Your task to perform on an android device: Open Youtube and go to the subscriptions tab Image 0: 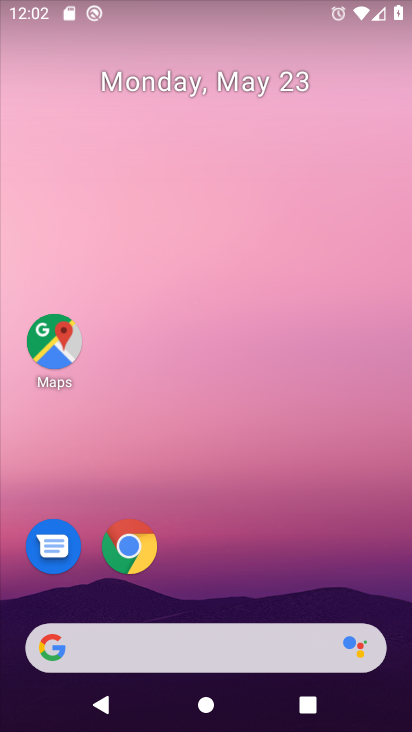
Step 0: drag from (210, 627) to (233, 212)
Your task to perform on an android device: Open Youtube and go to the subscriptions tab Image 1: 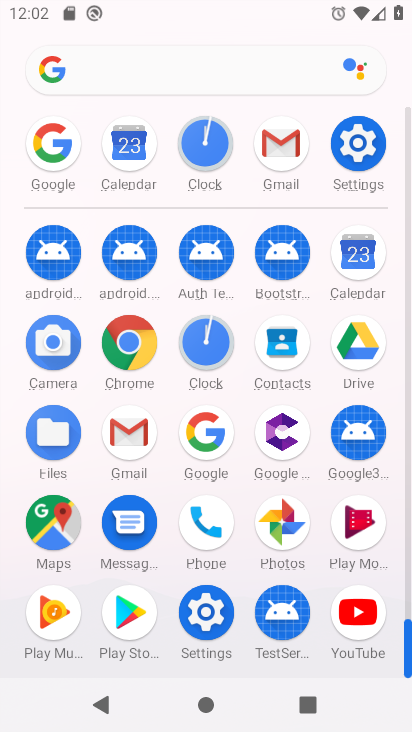
Step 1: drag from (301, 433) to (362, 109)
Your task to perform on an android device: Open Youtube and go to the subscriptions tab Image 2: 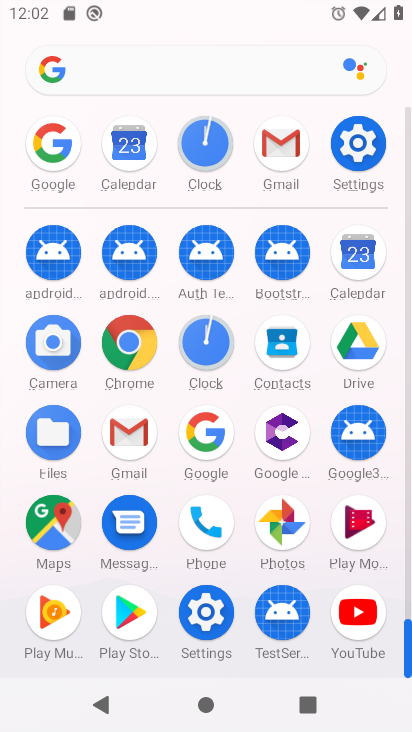
Step 2: click (364, 619)
Your task to perform on an android device: Open Youtube and go to the subscriptions tab Image 3: 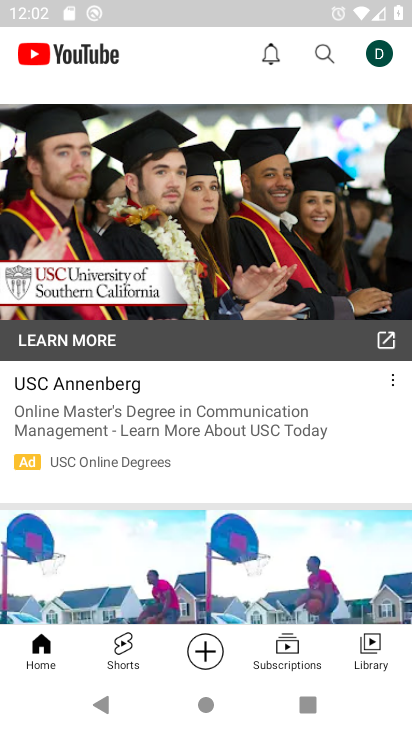
Step 3: click (280, 661)
Your task to perform on an android device: Open Youtube and go to the subscriptions tab Image 4: 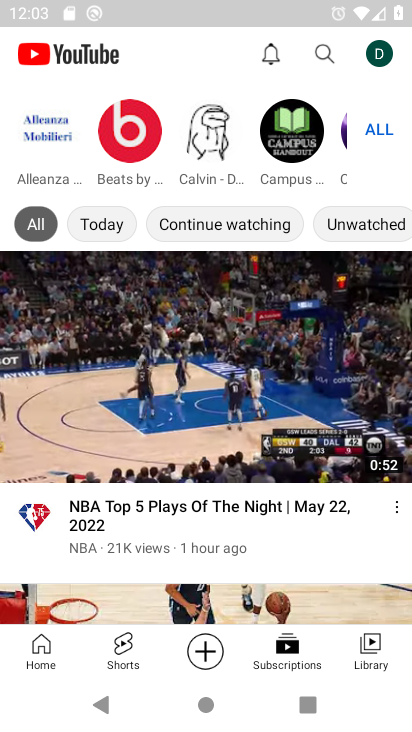
Step 4: task complete